Your task to perform on an android device: Show me popular videos on Youtube Image 0: 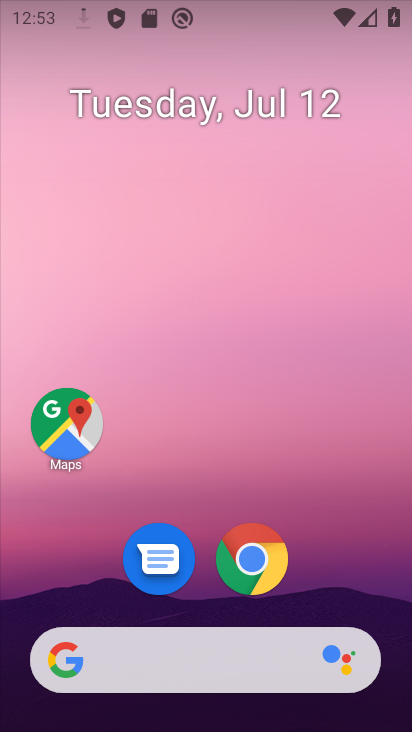
Step 0: drag from (380, 580) to (364, 216)
Your task to perform on an android device: Show me popular videos on Youtube Image 1: 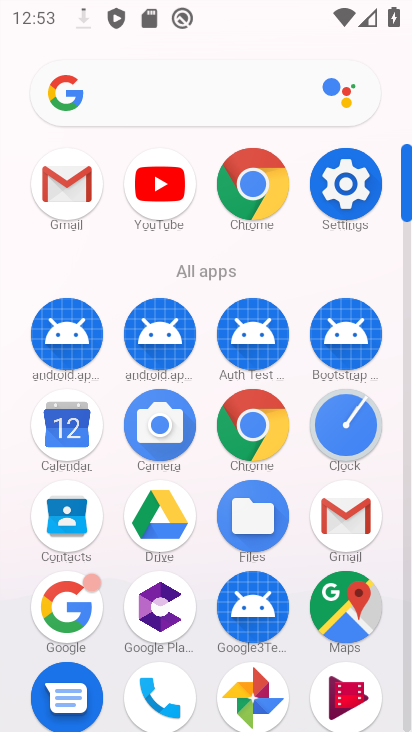
Step 1: click (138, 182)
Your task to perform on an android device: Show me popular videos on Youtube Image 2: 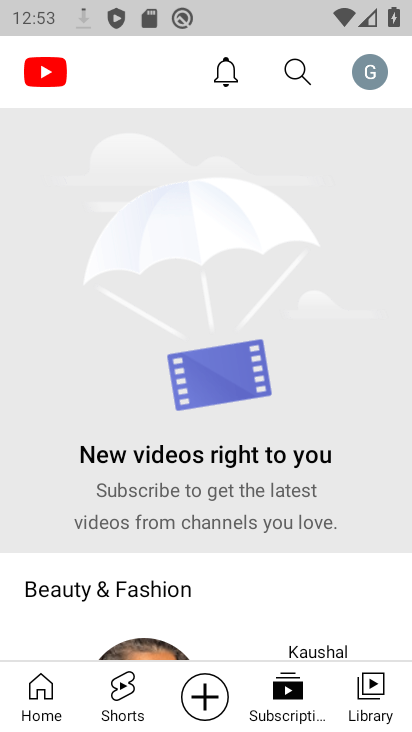
Step 2: click (39, 702)
Your task to perform on an android device: Show me popular videos on Youtube Image 3: 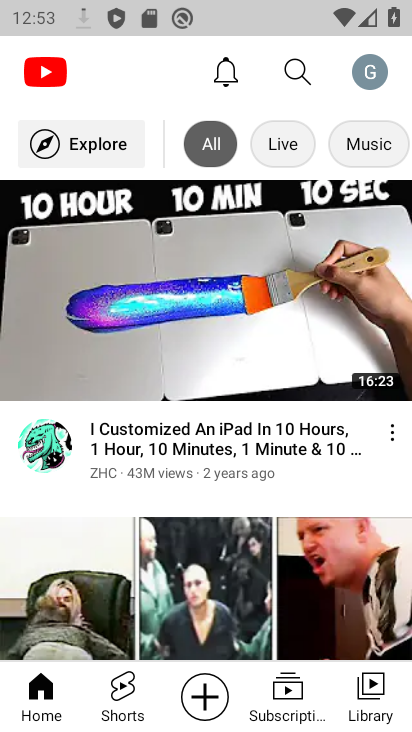
Step 3: task complete